Your task to perform on an android device: turn on location history Image 0: 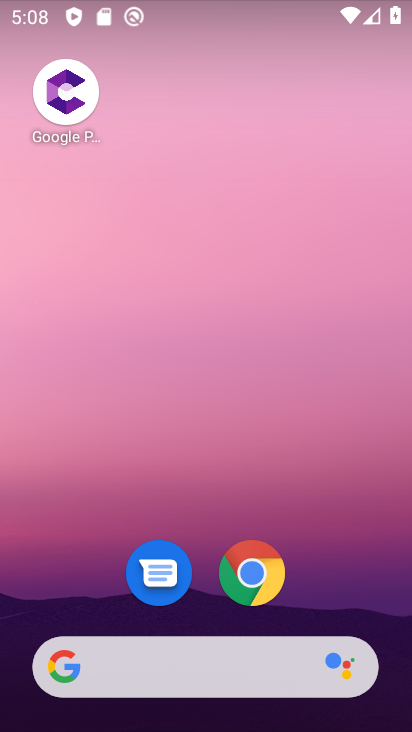
Step 0: drag from (353, 517) to (309, 179)
Your task to perform on an android device: turn on location history Image 1: 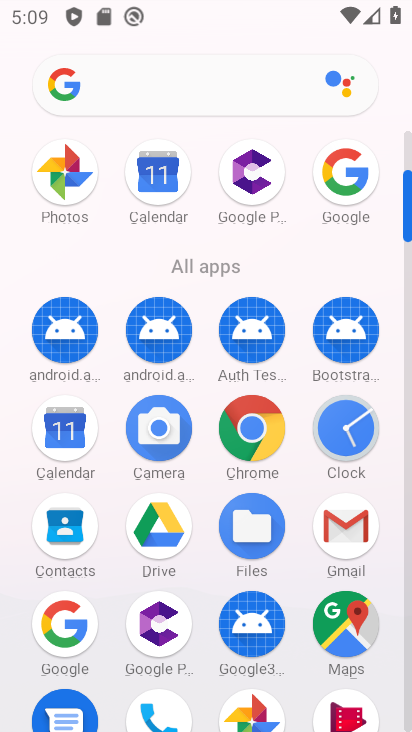
Step 1: drag from (404, 222) to (406, 270)
Your task to perform on an android device: turn on location history Image 2: 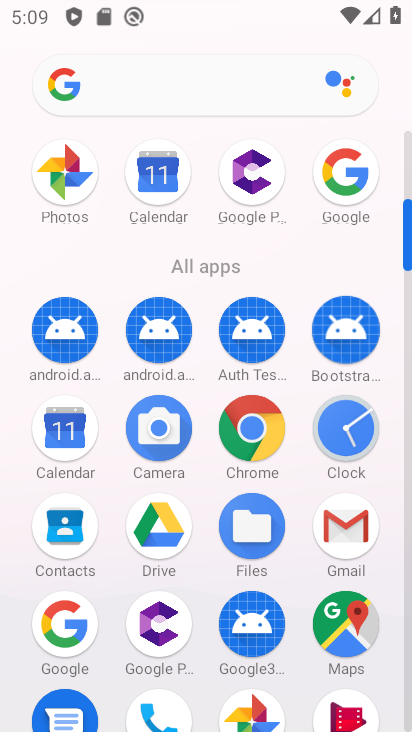
Step 2: click (406, 270)
Your task to perform on an android device: turn on location history Image 3: 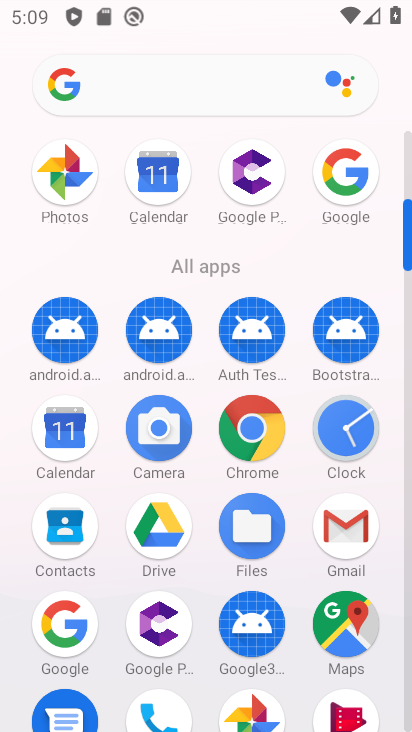
Step 3: drag from (294, 669) to (303, 433)
Your task to perform on an android device: turn on location history Image 4: 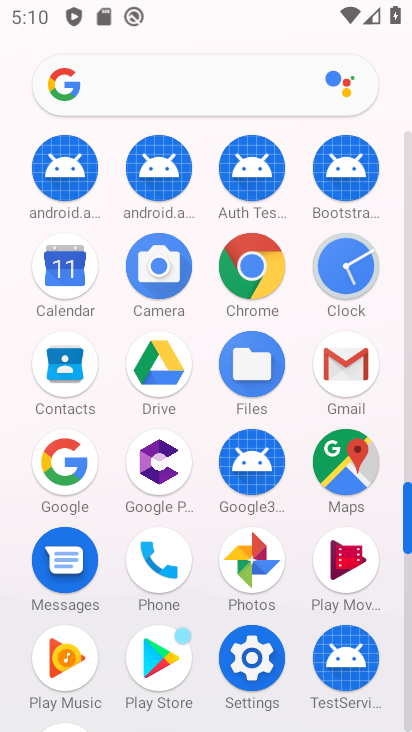
Step 4: click (337, 476)
Your task to perform on an android device: turn on location history Image 5: 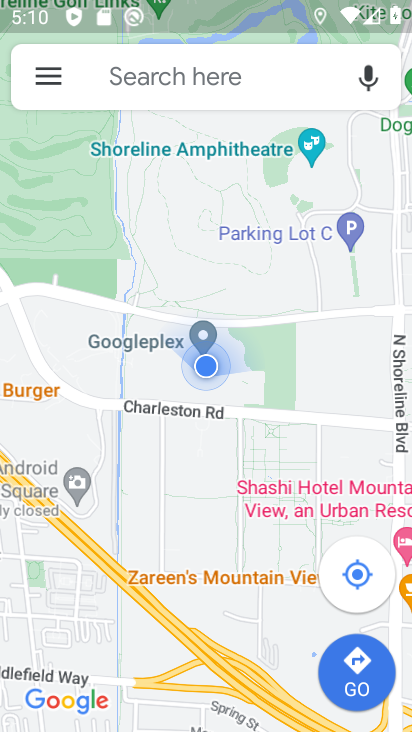
Step 5: click (37, 76)
Your task to perform on an android device: turn on location history Image 6: 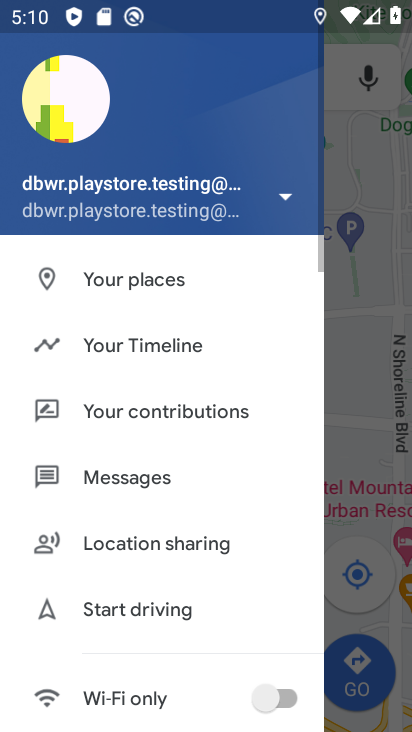
Step 6: drag from (196, 602) to (223, 384)
Your task to perform on an android device: turn on location history Image 7: 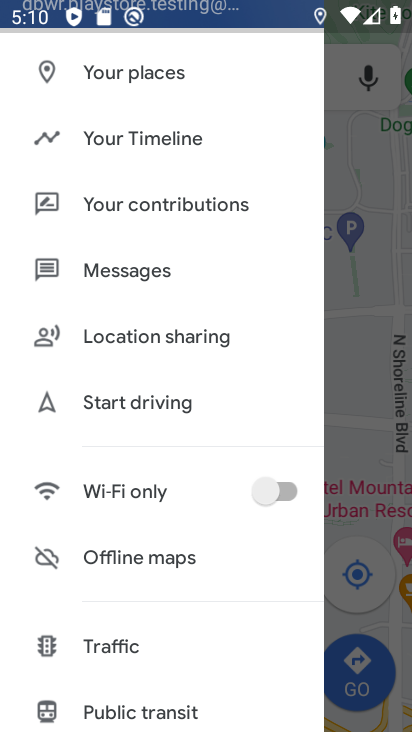
Step 7: drag from (184, 581) to (228, 313)
Your task to perform on an android device: turn on location history Image 8: 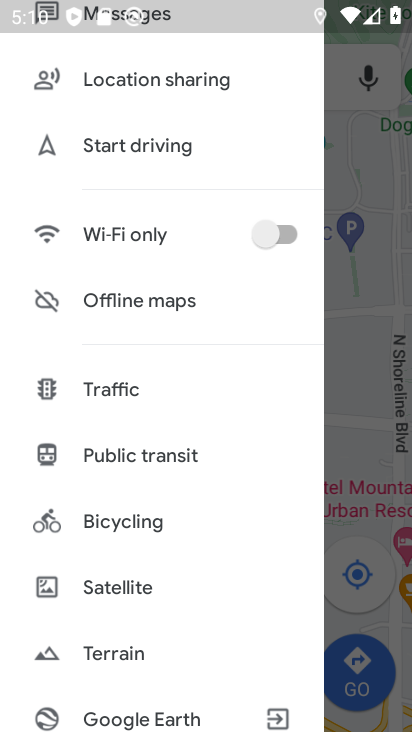
Step 8: drag from (184, 617) to (197, 382)
Your task to perform on an android device: turn on location history Image 9: 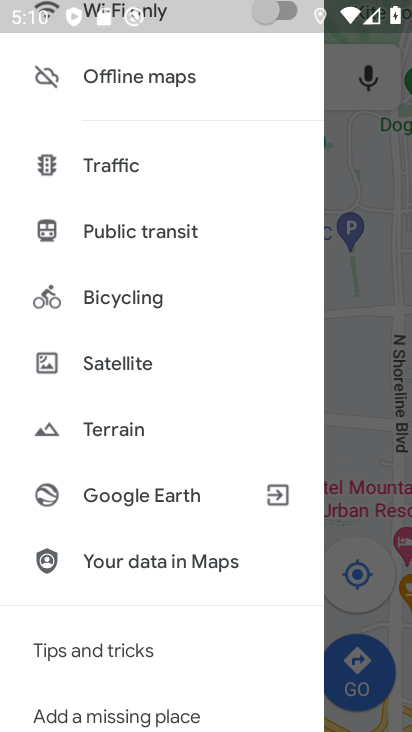
Step 9: drag from (172, 632) to (226, 329)
Your task to perform on an android device: turn on location history Image 10: 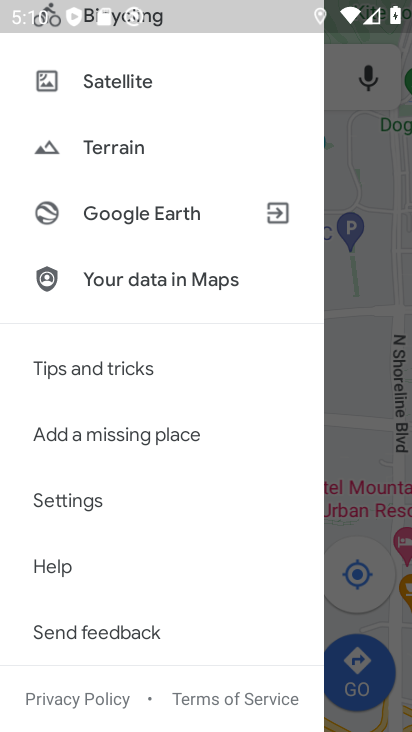
Step 10: click (64, 500)
Your task to perform on an android device: turn on location history Image 11: 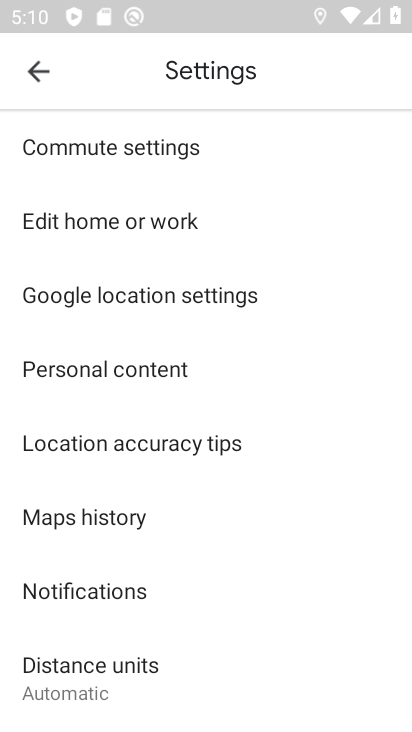
Step 11: click (193, 291)
Your task to perform on an android device: turn on location history Image 12: 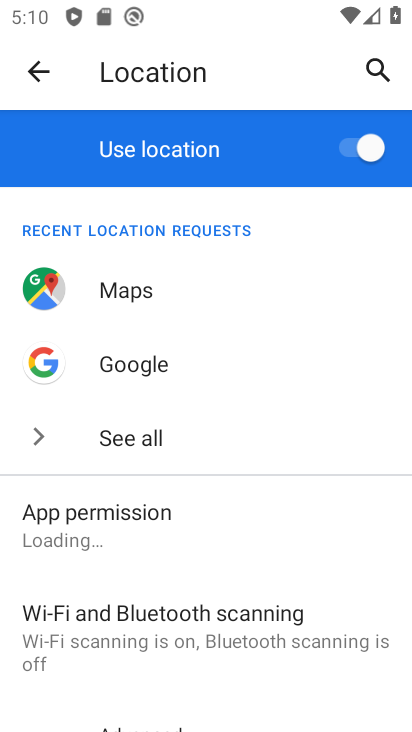
Step 12: drag from (210, 626) to (240, 342)
Your task to perform on an android device: turn on location history Image 13: 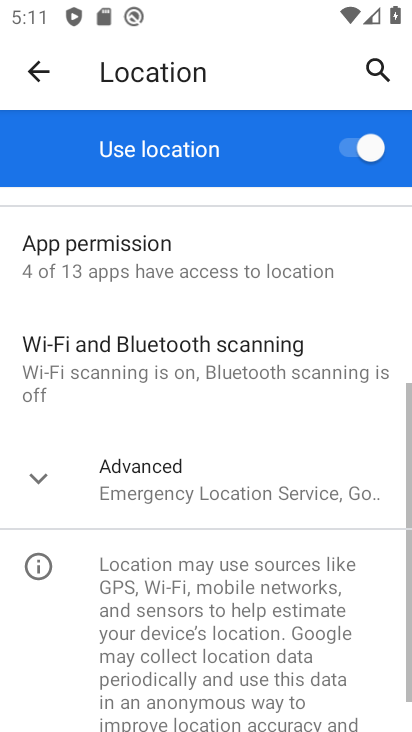
Step 13: click (132, 481)
Your task to perform on an android device: turn on location history Image 14: 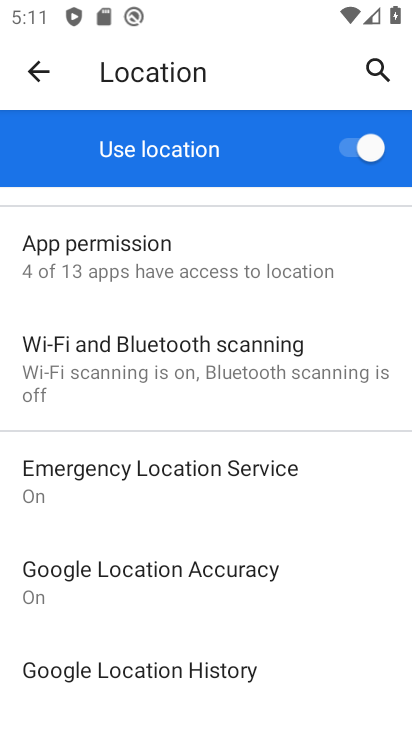
Step 14: drag from (200, 596) to (223, 386)
Your task to perform on an android device: turn on location history Image 15: 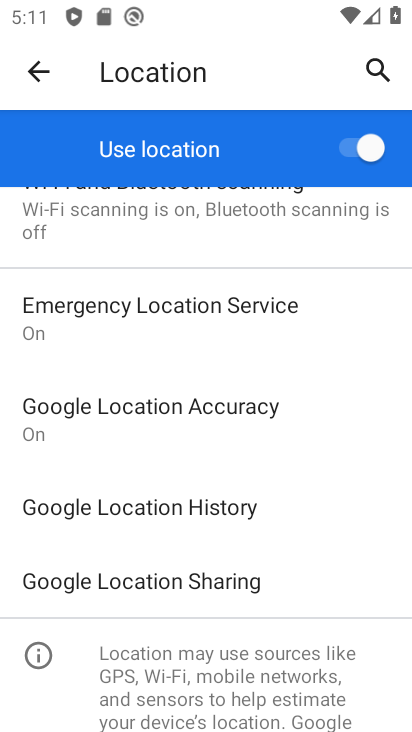
Step 15: click (151, 505)
Your task to perform on an android device: turn on location history Image 16: 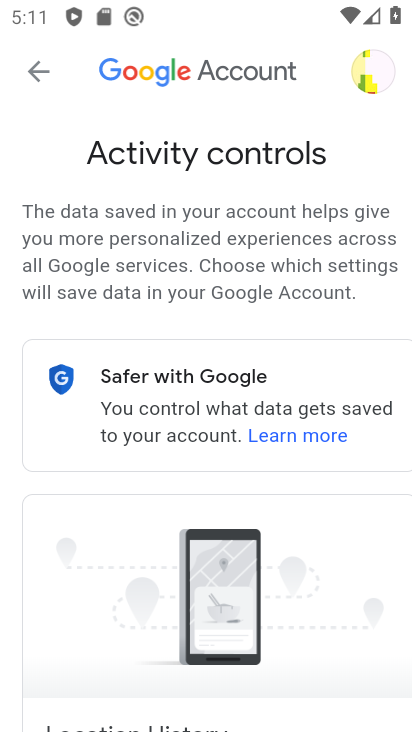
Step 16: drag from (317, 598) to (308, 303)
Your task to perform on an android device: turn on location history Image 17: 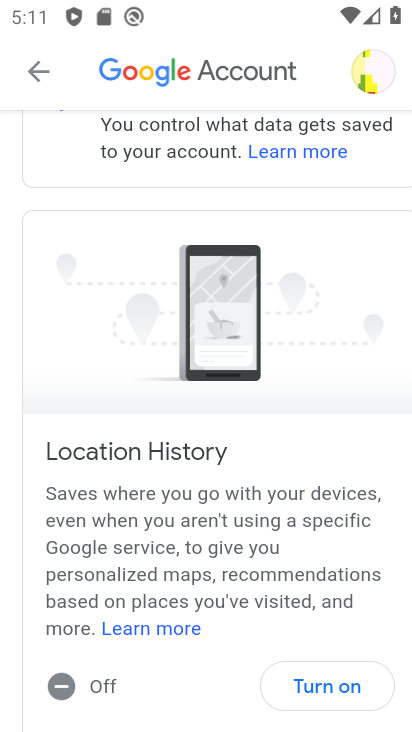
Step 17: click (323, 679)
Your task to perform on an android device: turn on location history Image 18: 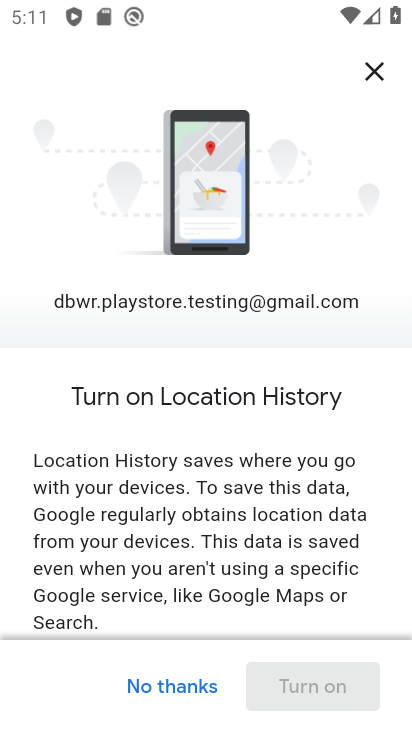
Step 18: drag from (199, 584) to (218, 228)
Your task to perform on an android device: turn on location history Image 19: 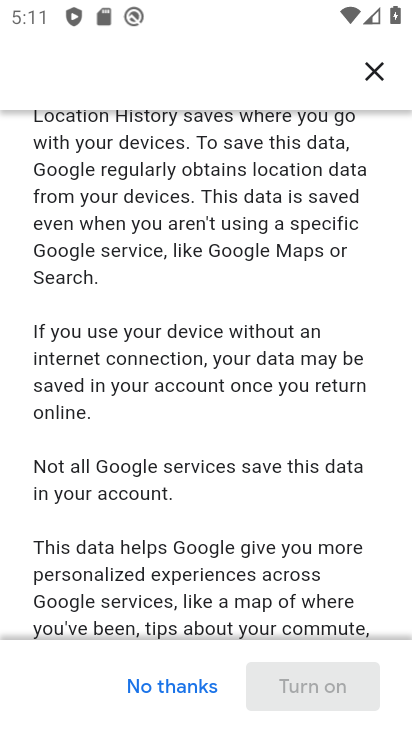
Step 19: drag from (199, 608) to (218, 210)
Your task to perform on an android device: turn on location history Image 20: 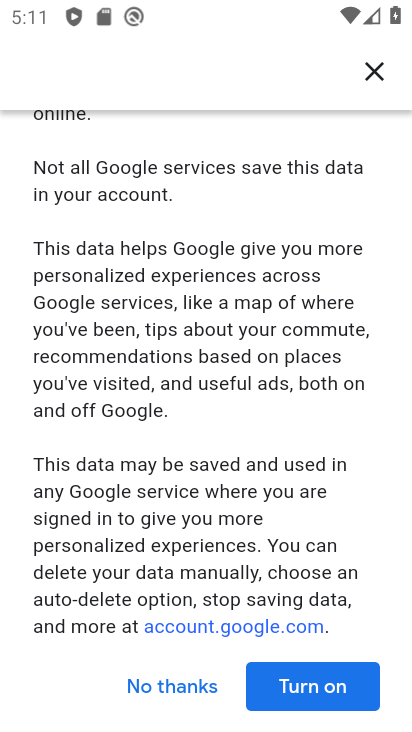
Step 20: drag from (213, 573) to (254, 168)
Your task to perform on an android device: turn on location history Image 21: 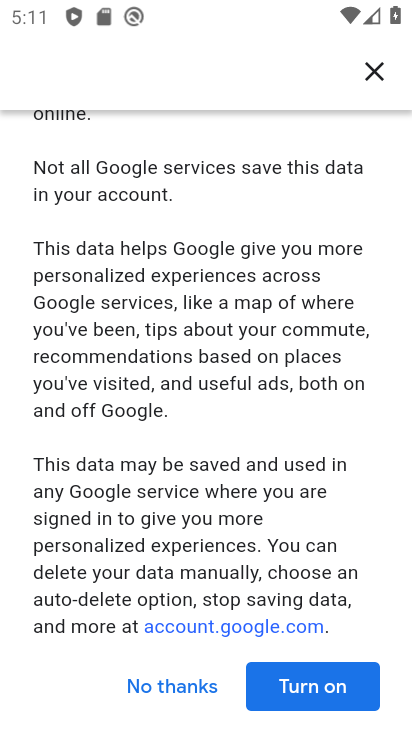
Step 21: drag from (260, 557) to (251, 215)
Your task to perform on an android device: turn on location history Image 22: 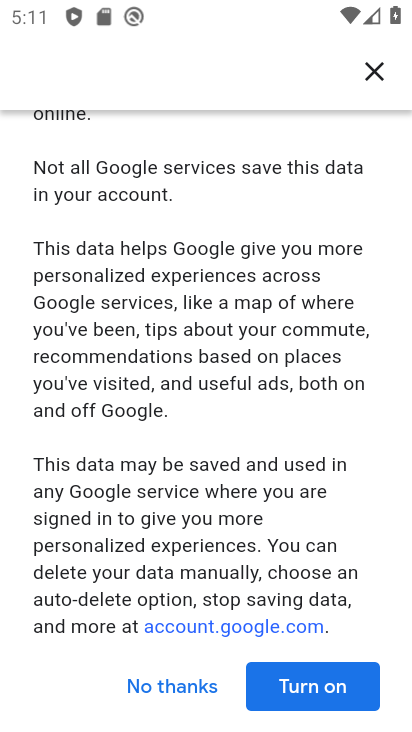
Step 22: drag from (255, 597) to (255, 270)
Your task to perform on an android device: turn on location history Image 23: 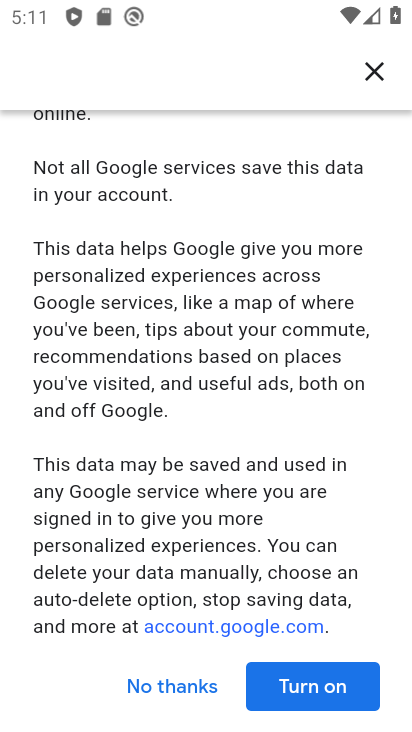
Step 23: click (305, 685)
Your task to perform on an android device: turn on location history Image 24: 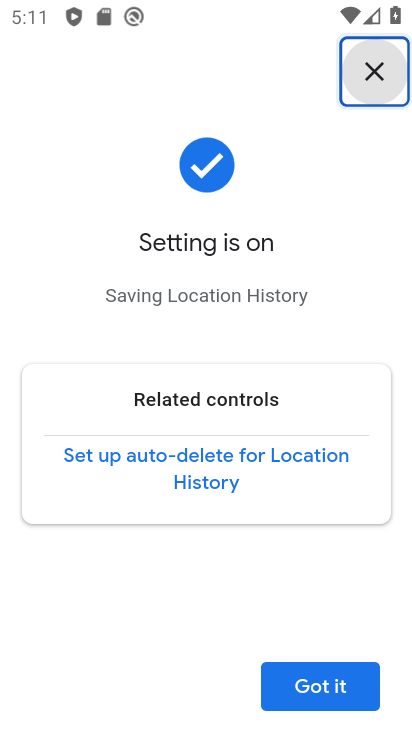
Step 24: click (305, 683)
Your task to perform on an android device: turn on location history Image 25: 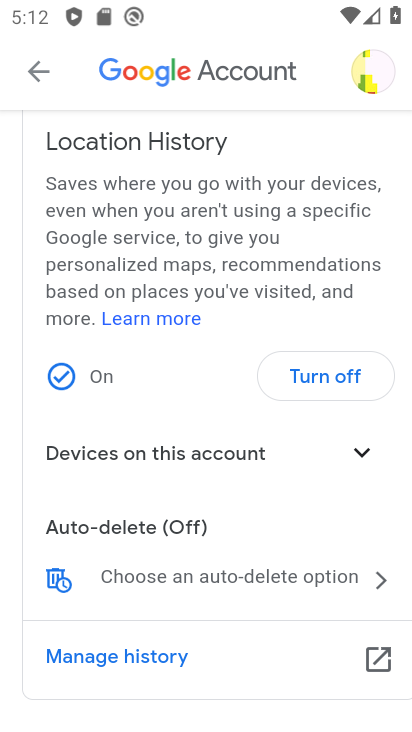
Step 25: task complete